Your task to perform on an android device: open app "Move to iOS" (install if not already installed) Image 0: 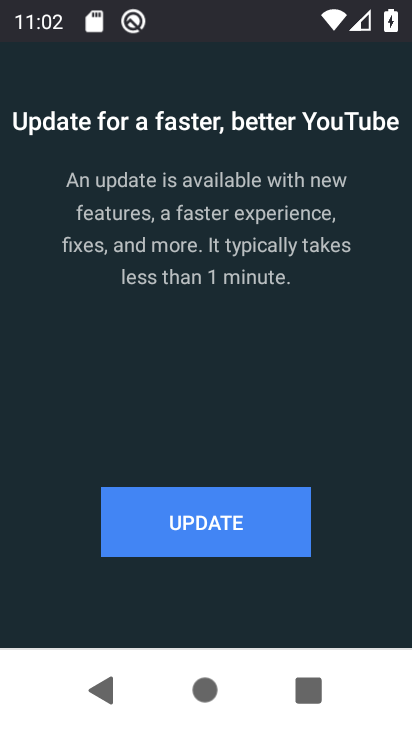
Step 0: press home button
Your task to perform on an android device: open app "Move to iOS" (install if not already installed) Image 1: 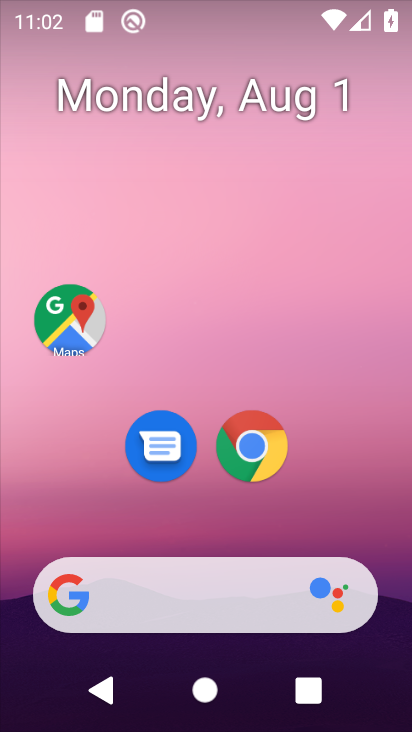
Step 1: drag from (207, 521) to (214, 166)
Your task to perform on an android device: open app "Move to iOS" (install if not already installed) Image 2: 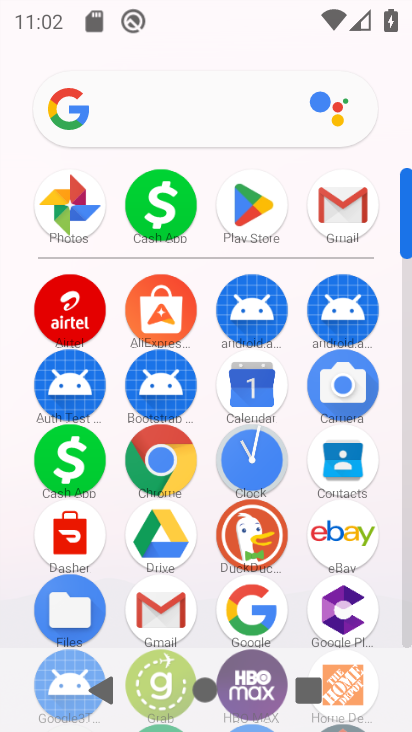
Step 2: click (262, 194)
Your task to perform on an android device: open app "Move to iOS" (install if not already installed) Image 3: 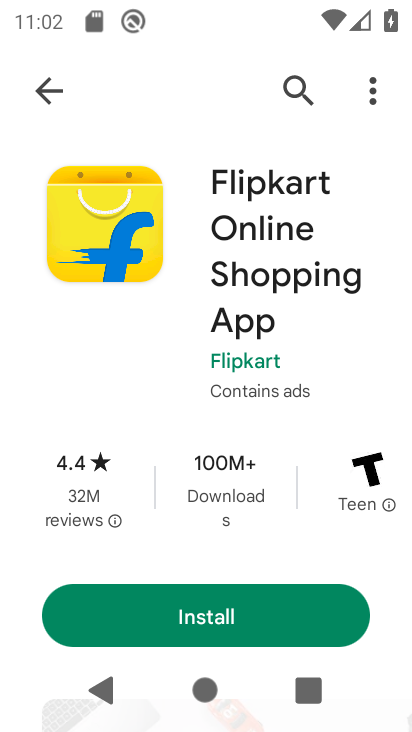
Step 3: click (292, 88)
Your task to perform on an android device: open app "Move to iOS" (install if not already installed) Image 4: 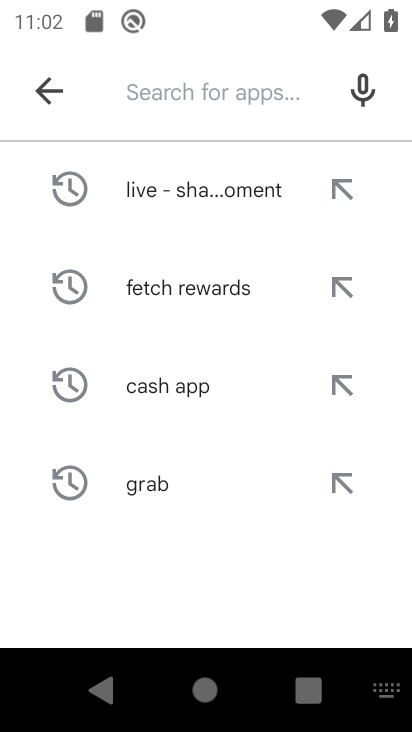
Step 4: type "Move to iOS"
Your task to perform on an android device: open app "Move to iOS" (install if not already installed) Image 5: 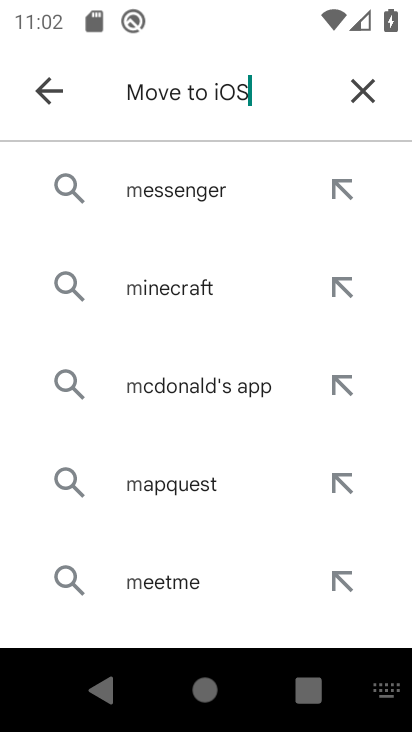
Step 5: type ""
Your task to perform on an android device: open app "Move to iOS" (install if not already installed) Image 6: 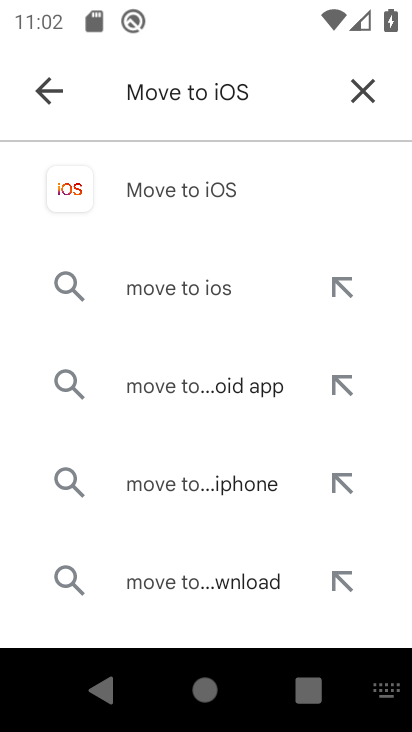
Step 6: click (202, 194)
Your task to perform on an android device: open app "Move to iOS" (install if not already installed) Image 7: 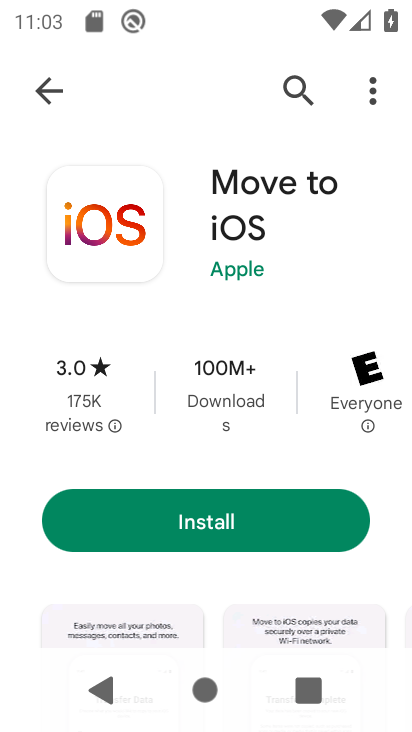
Step 7: click (215, 507)
Your task to perform on an android device: open app "Move to iOS" (install if not already installed) Image 8: 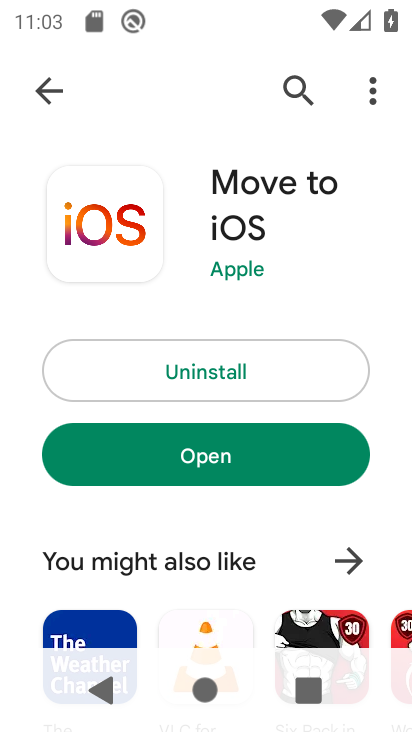
Step 8: click (213, 464)
Your task to perform on an android device: open app "Move to iOS" (install if not already installed) Image 9: 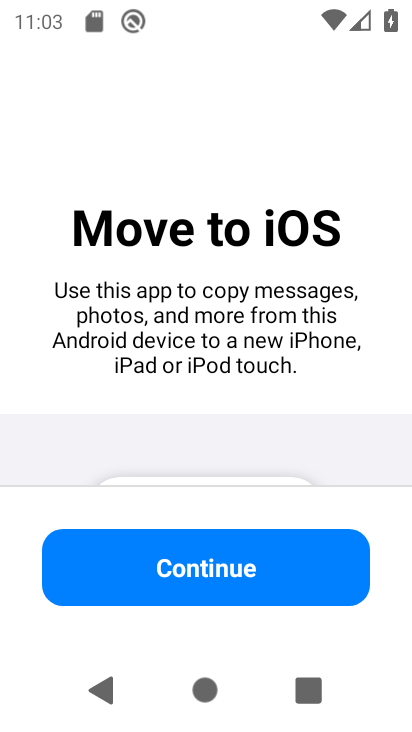
Step 9: task complete